Your task to perform on an android device: Do I have any events tomorrow? Image 0: 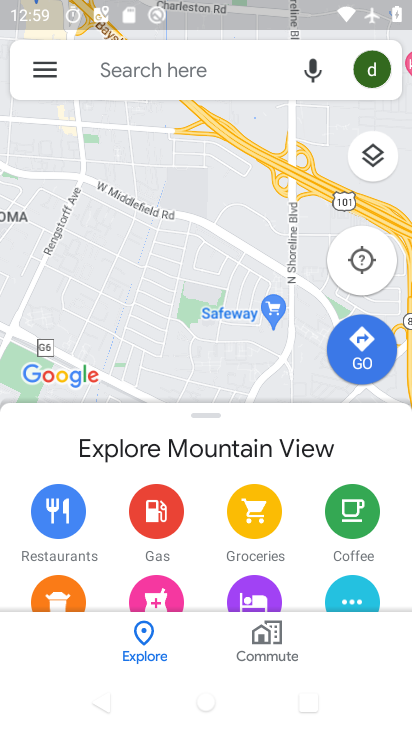
Step 0: press home button
Your task to perform on an android device: Do I have any events tomorrow? Image 1: 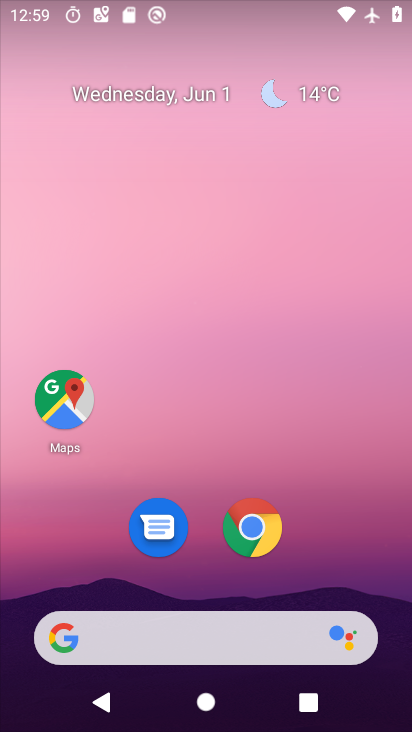
Step 1: drag from (367, 518) to (365, 6)
Your task to perform on an android device: Do I have any events tomorrow? Image 2: 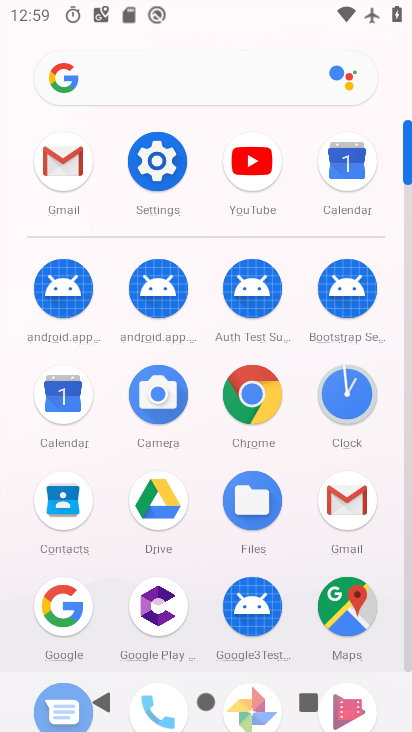
Step 2: click (358, 166)
Your task to perform on an android device: Do I have any events tomorrow? Image 3: 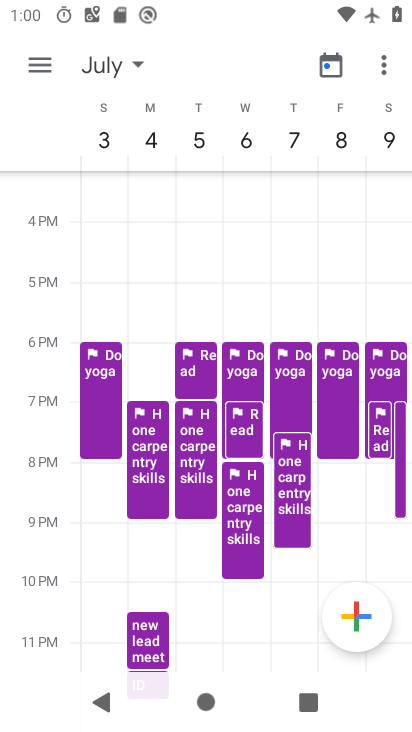
Step 3: click (44, 68)
Your task to perform on an android device: Do I have any events tomorrow? Image 4: 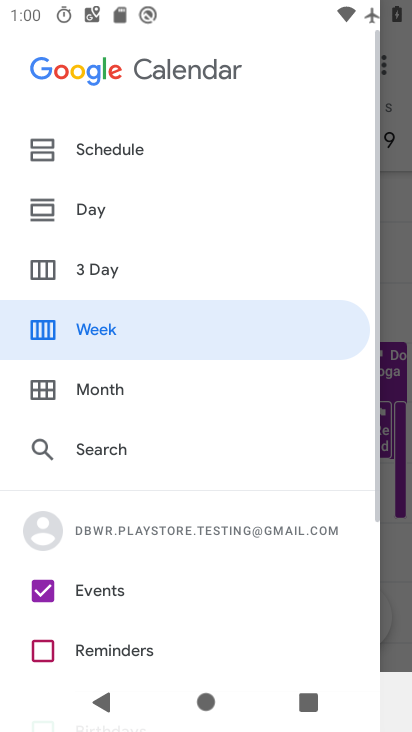
Step 4: click (91, 155)
Your task to perform on an android device: Do I have any events tomorrow? Image 5: 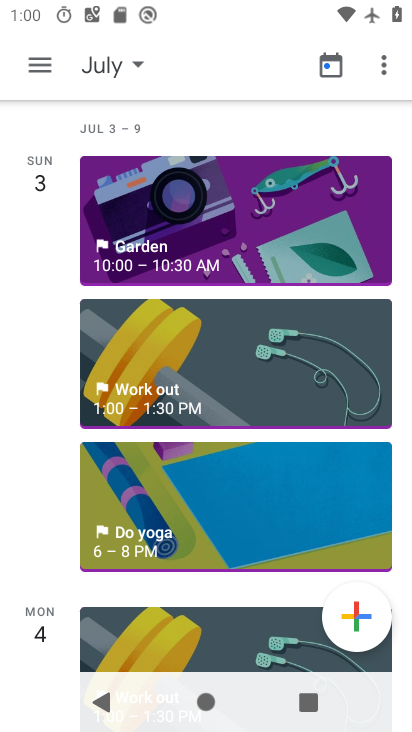
Step 5: click (336, 71)
Your task to perform on an android device: Do I have any events tomorrow? Image 6: 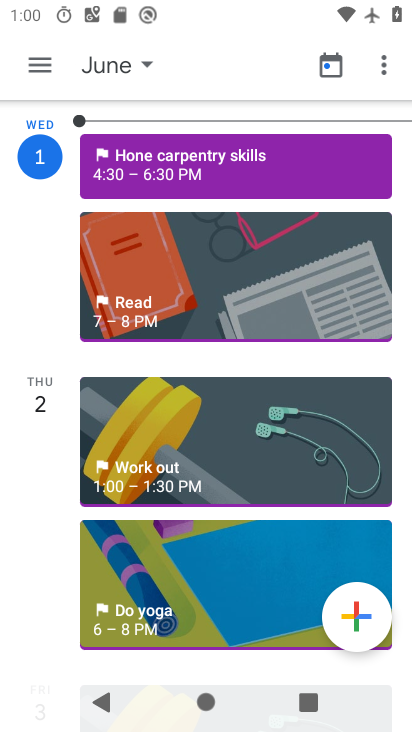
Step 6: drag from (170, 452) to (179, 172)
Your task to perform on an android device: Do I have any events tomorrow? Image 7: 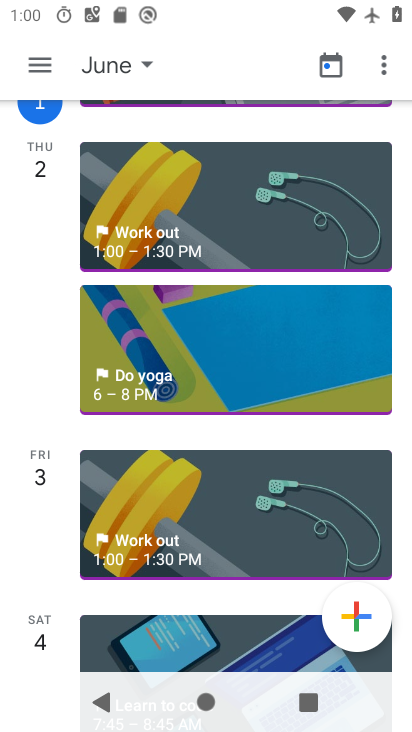
Step 7: click (33, 69)
Your task to perform on an android device: Do I have any events tomorrow? Image 8: 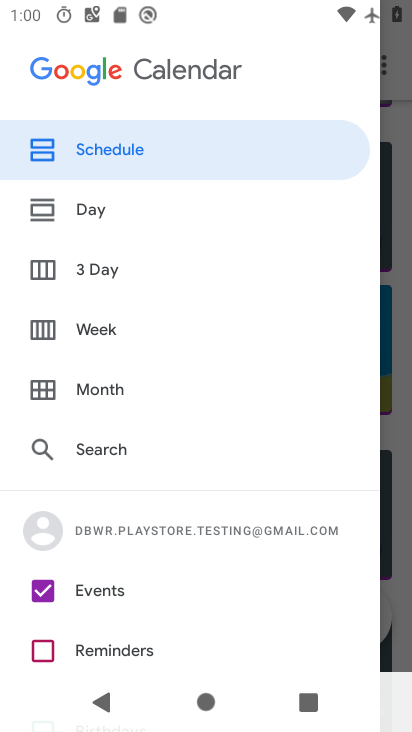
Step 8: click (89, 153)
Your task to perform on an android device: Do I have any events tomorrow? Image 9: 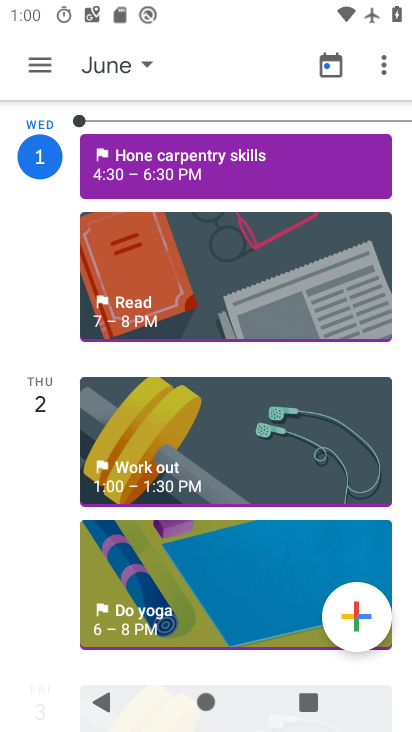
Step 9: drag from (197, 299) to (208, 51)
Your task to perform on an android device: Do I have any events tomorrow? Image 10: 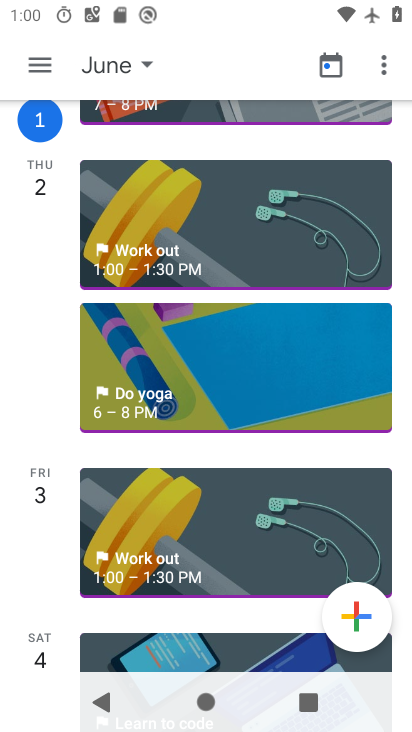
Step 10: drag from (175, 357) to (194, 216)
Your task to perform on an android device: Do I have any events tomorrow? Image 11: 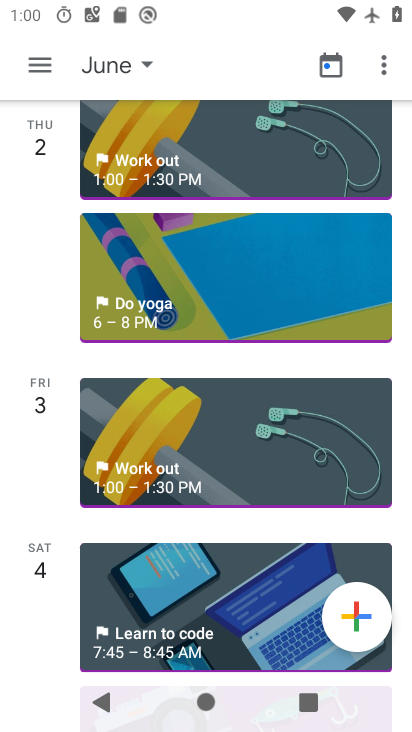
Step 11: drag from (187, 355) to (215, 223)
Your task to perform on an android device: Do I have any events tomorrow? Image 12: 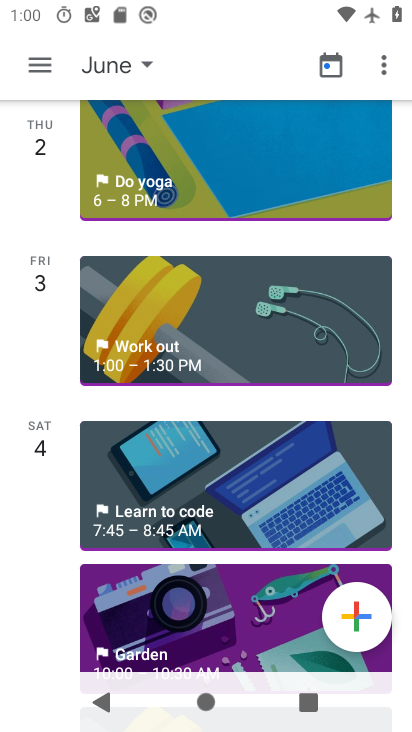
Step 12: drag from (199, 213) to (192, 438)
Your task to perform on an android device: Do I have any events tomorrow? Image 13: 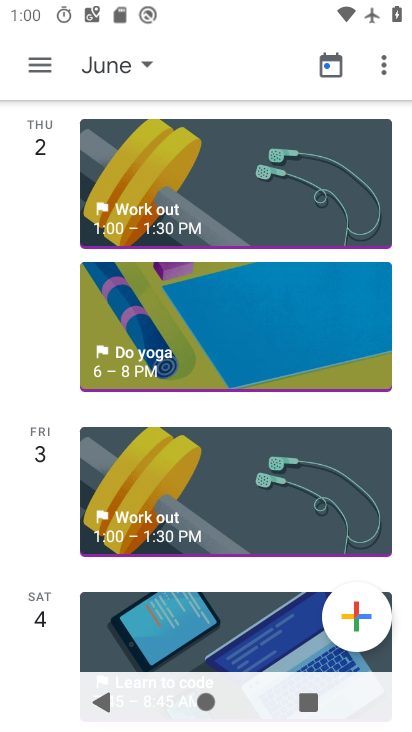
Step 13: drag from (156, 205) to (167, 464)
Your task to perform on an android device: Do I have any events tomorrow? Image 14: 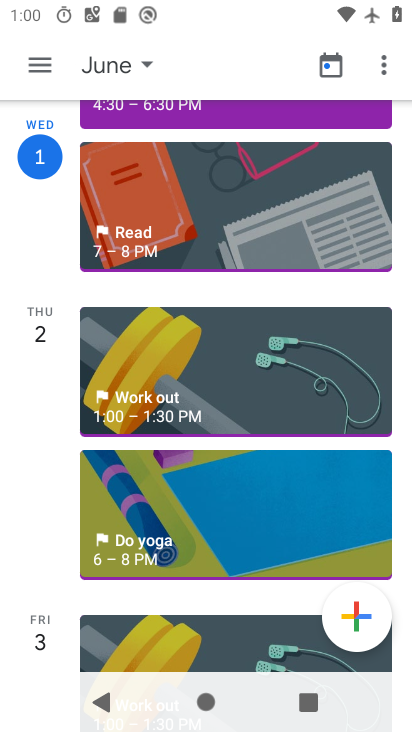
Step 14: click (145, 64)
Your task to perform on an android device: Do I have any events tomorrow? Image 15: 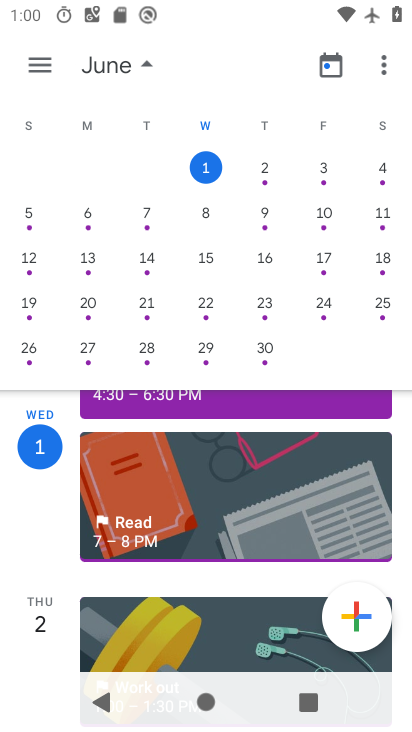
Step 15: click (265, 167)
Your task to perform on an android device: Do I have any events tomorrow? Image 16: 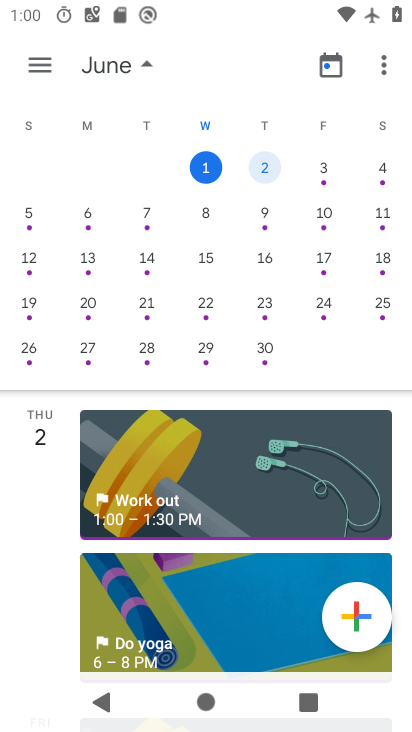
Step 16: click (39, 62)
Your task to perform on an android device: Do I have any events tomorrow? Image 17: 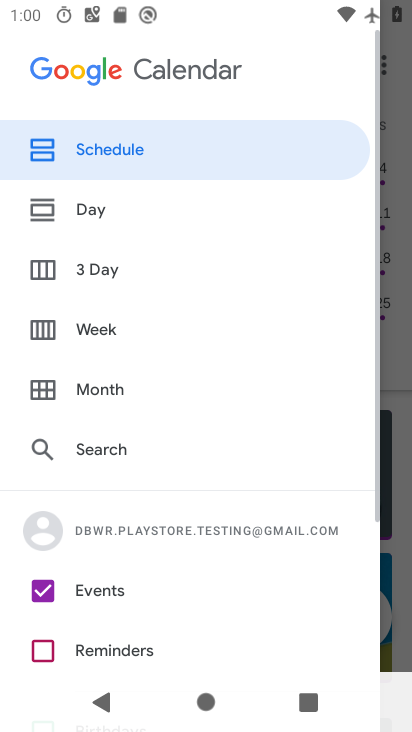
Step 17: click (77, 212)
Your task to perform on an android device: Do I have any events tomorrow? Image 18: 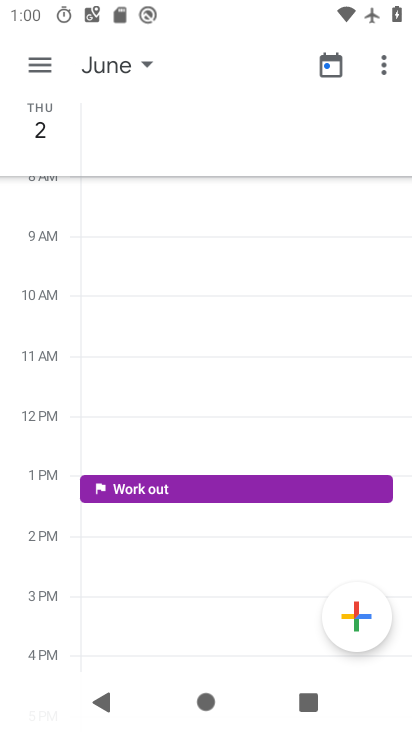
Step 18: task complete